Your task to perform on an android device: Open Android settings Image 0: 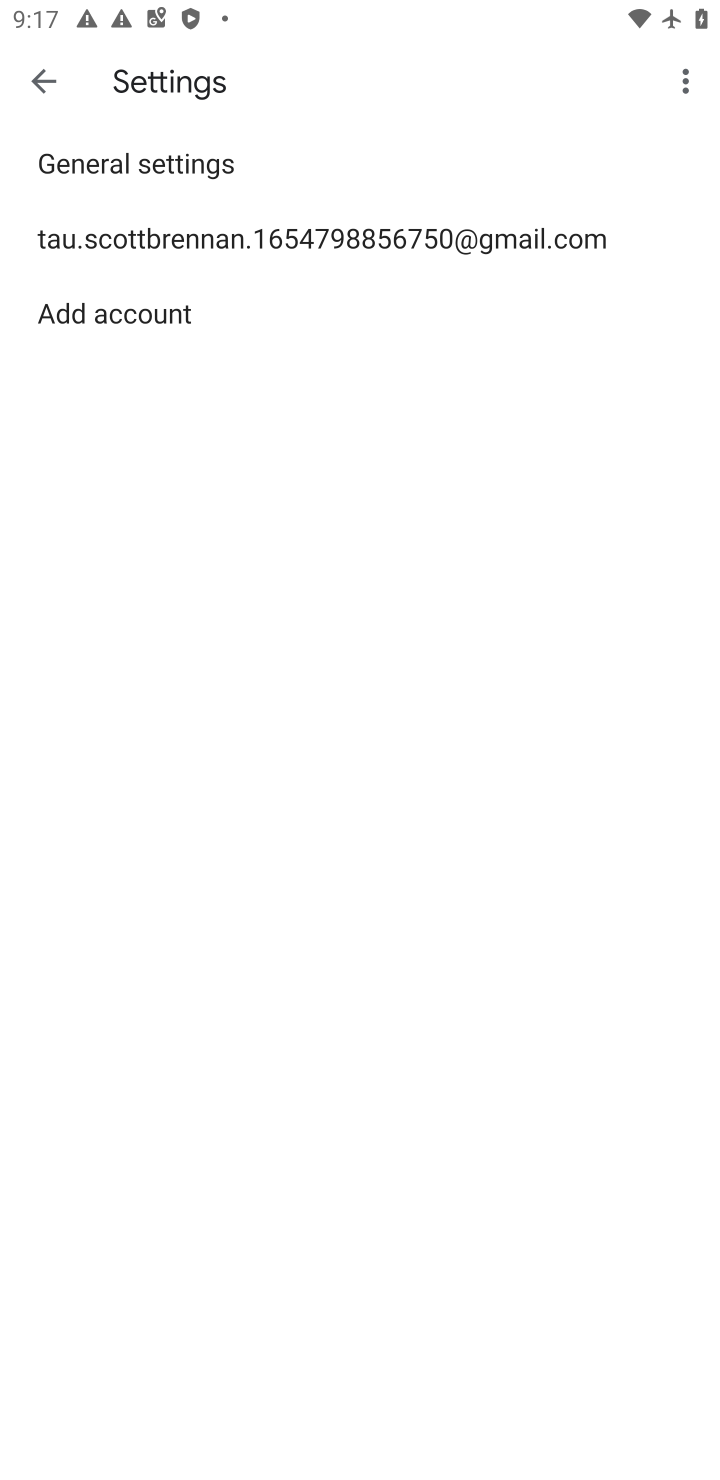
Step 0: press home button
Your task to perform on an android device: Open Android settings Image 1: 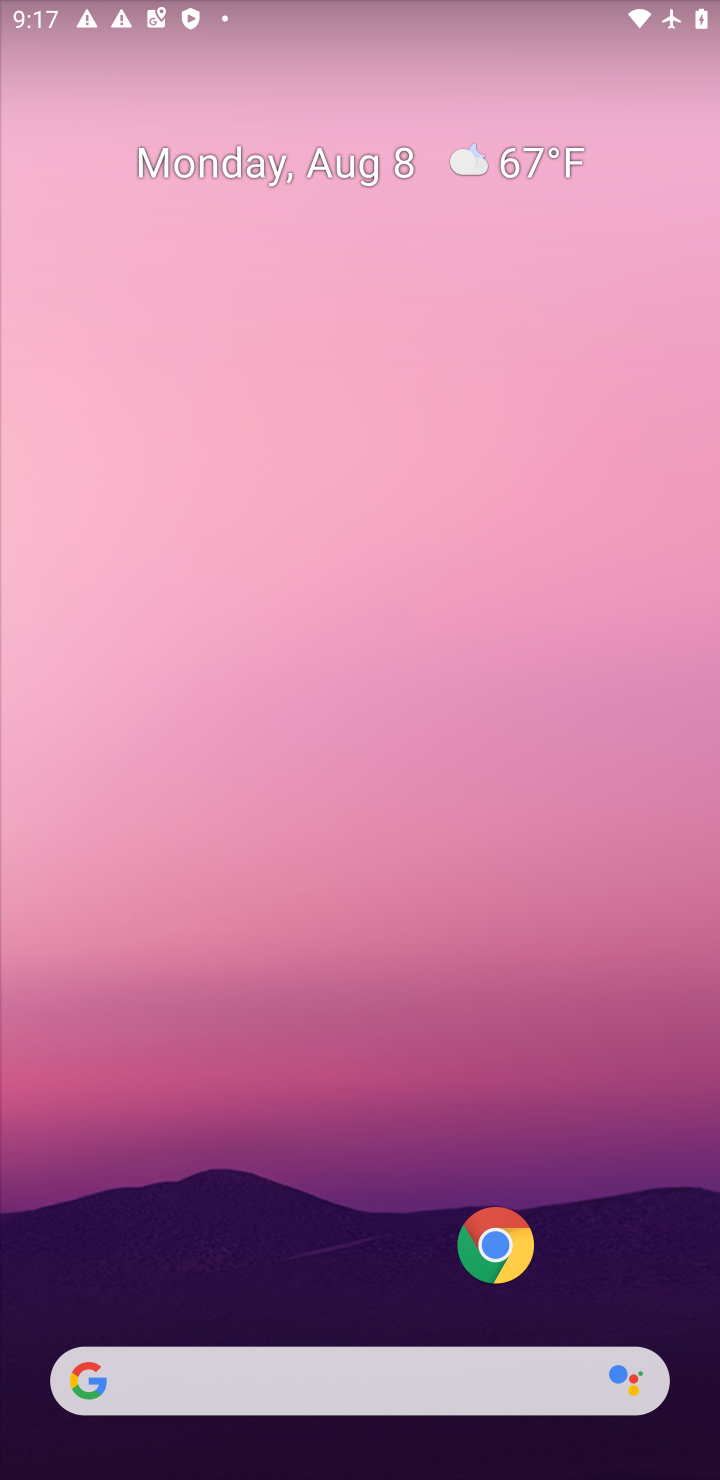
Step 1: drag from (268, 1037) to (342, 16)
Your task to perform on an android device: Open Android settings Image 2: 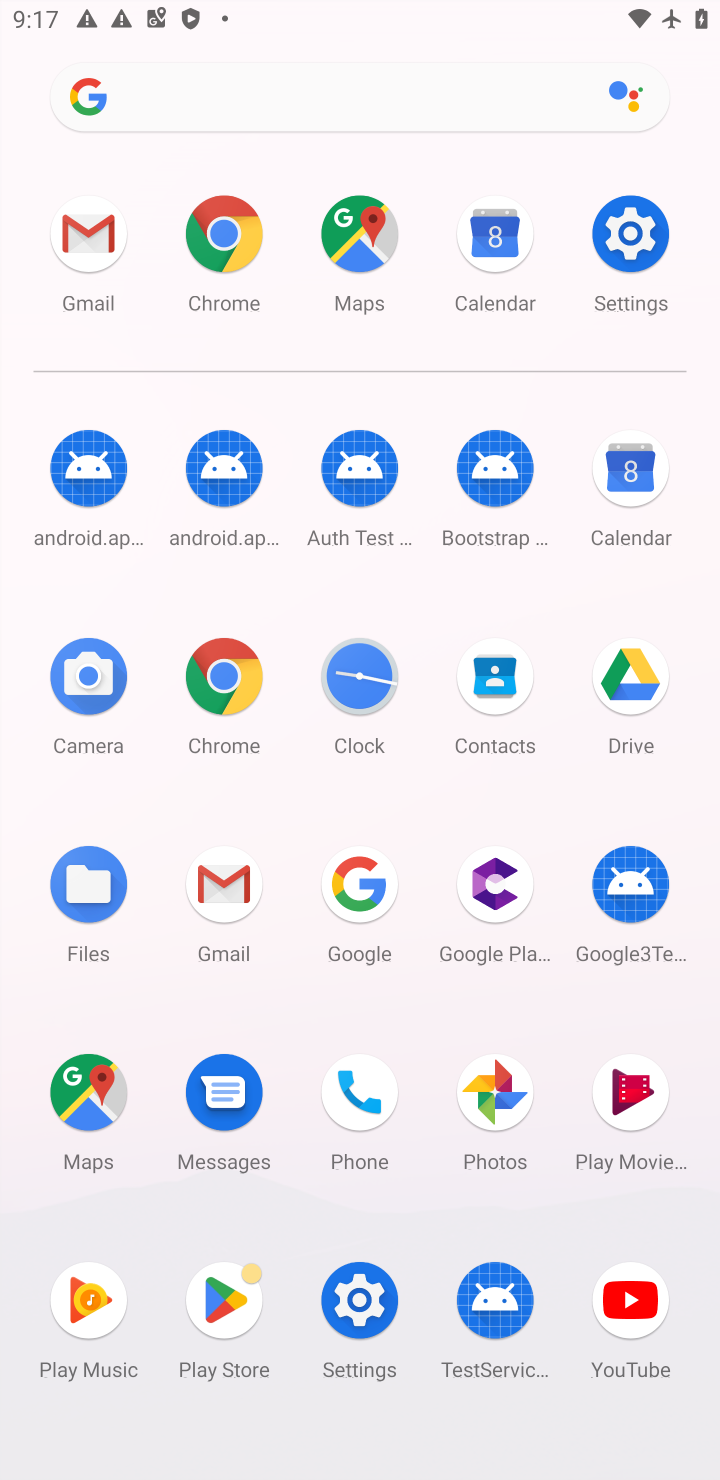
Step 2: click (352, 1315)
Your task to perform on an android device: Open Android settings Image 3: 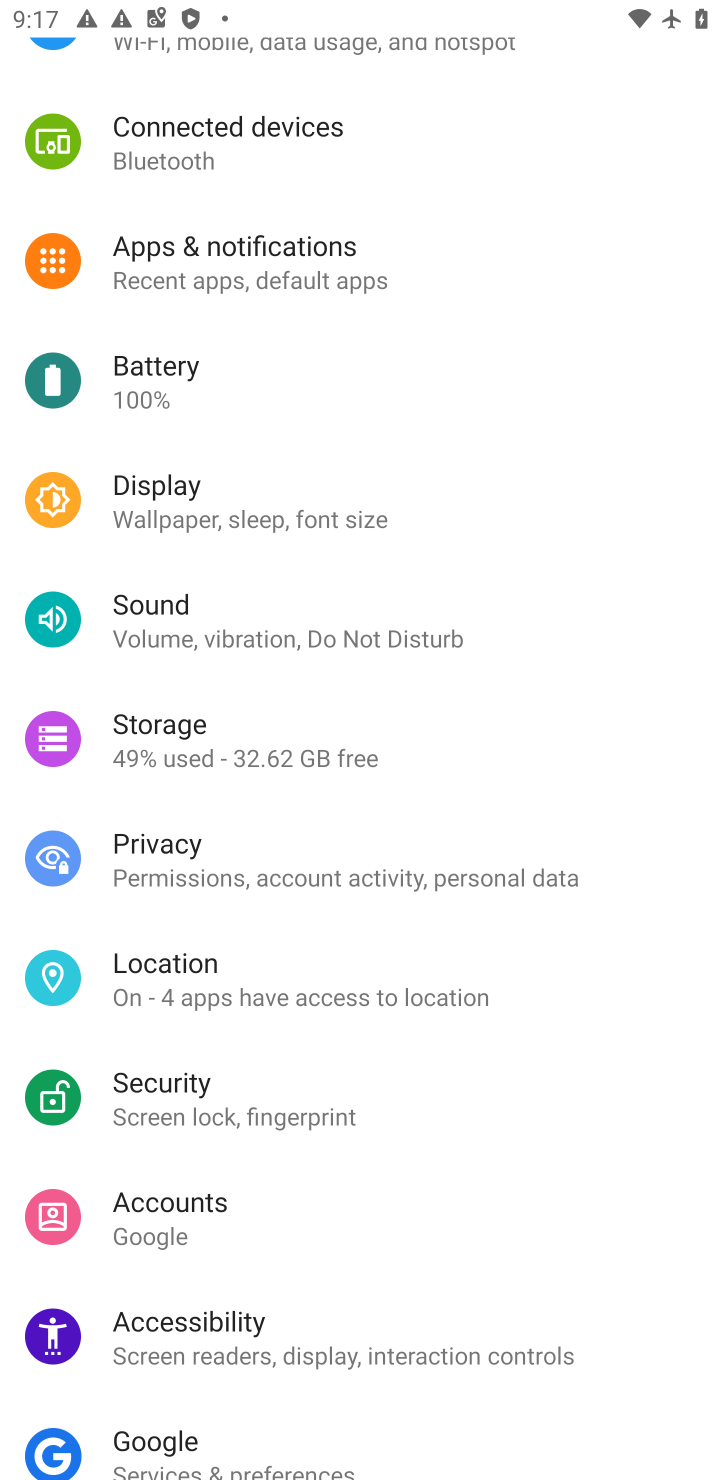
Step 3: drag from (294, 1210) to (319, 2)
Your task to perform on an android device: Open Android settings Image 4: 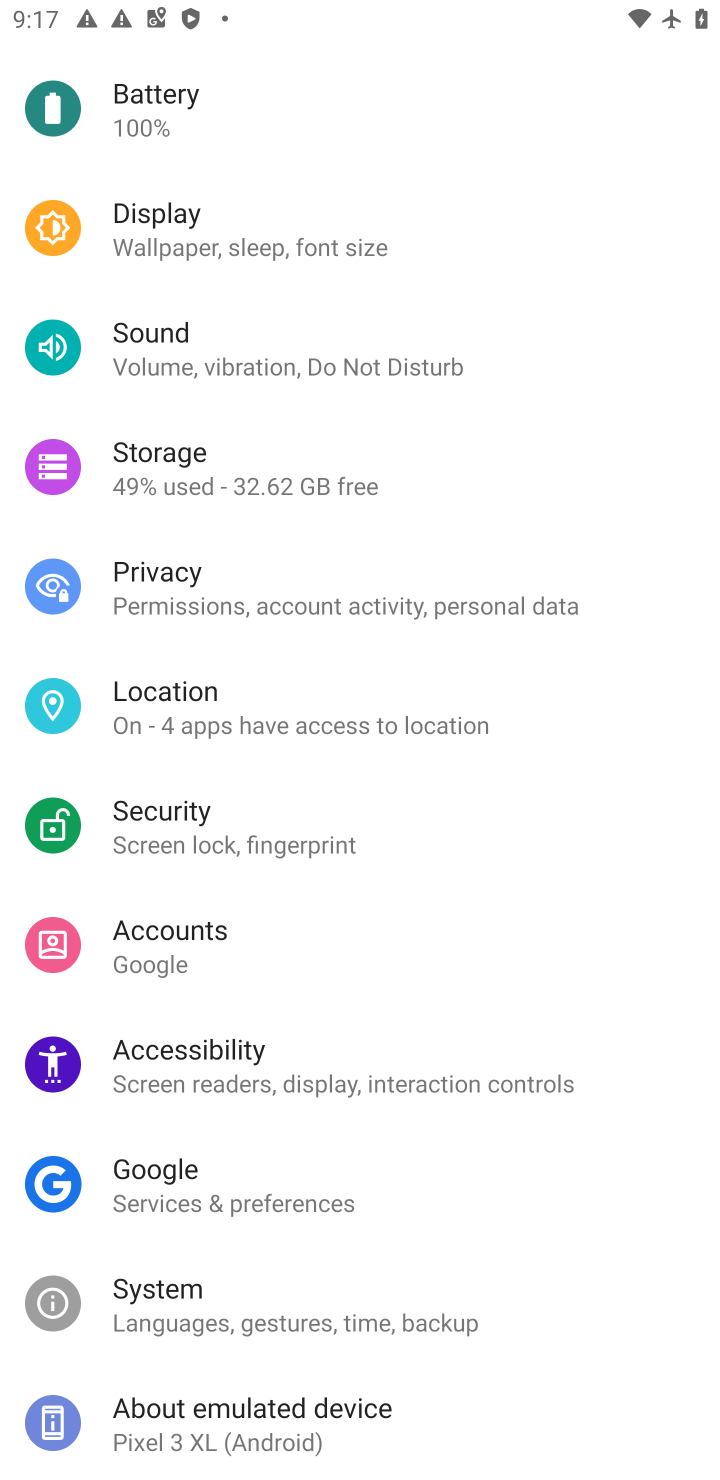
Step 4: drag from (254, 1300) to (252, 764)
Your task to perform on an android device: Open Android settings Image 5: 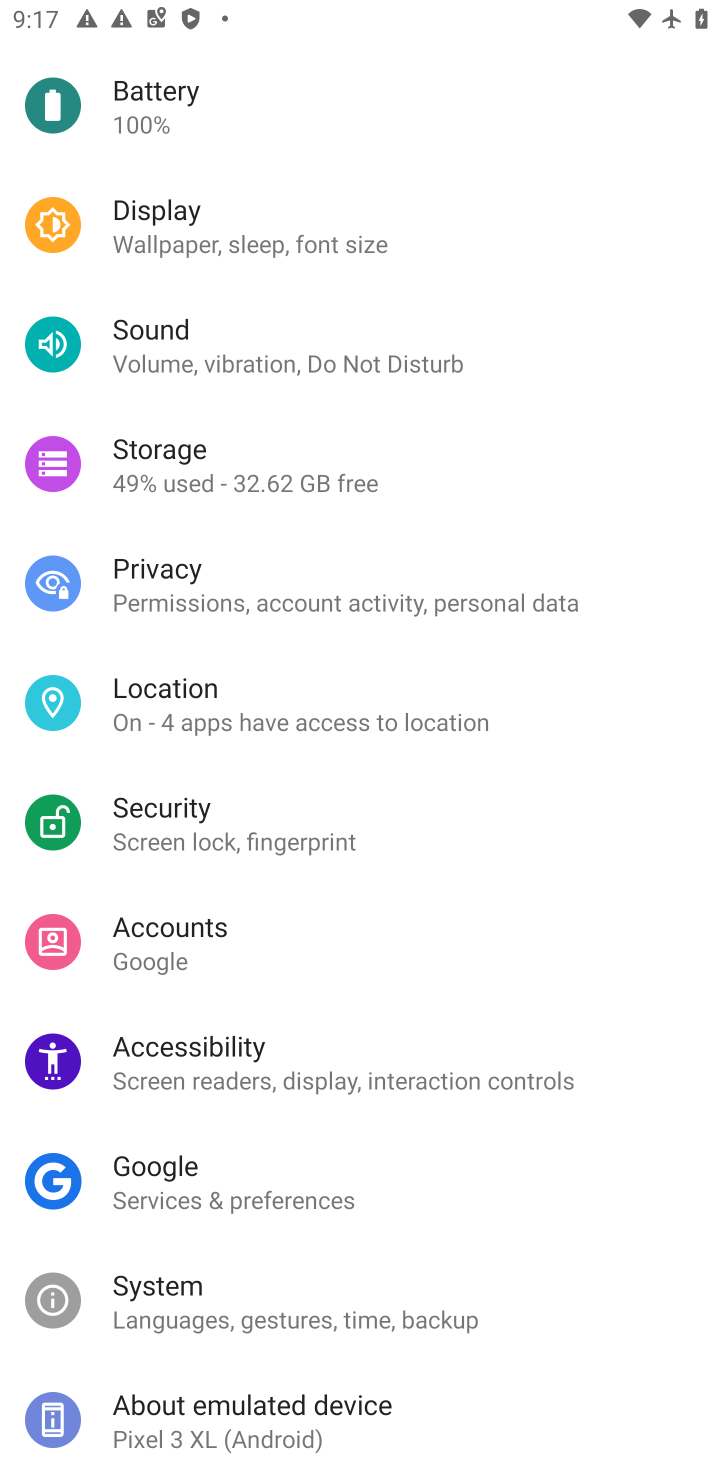
Step 5: click (190, 1412)
Your task to perform on an android device: Open Android settings Image 6: 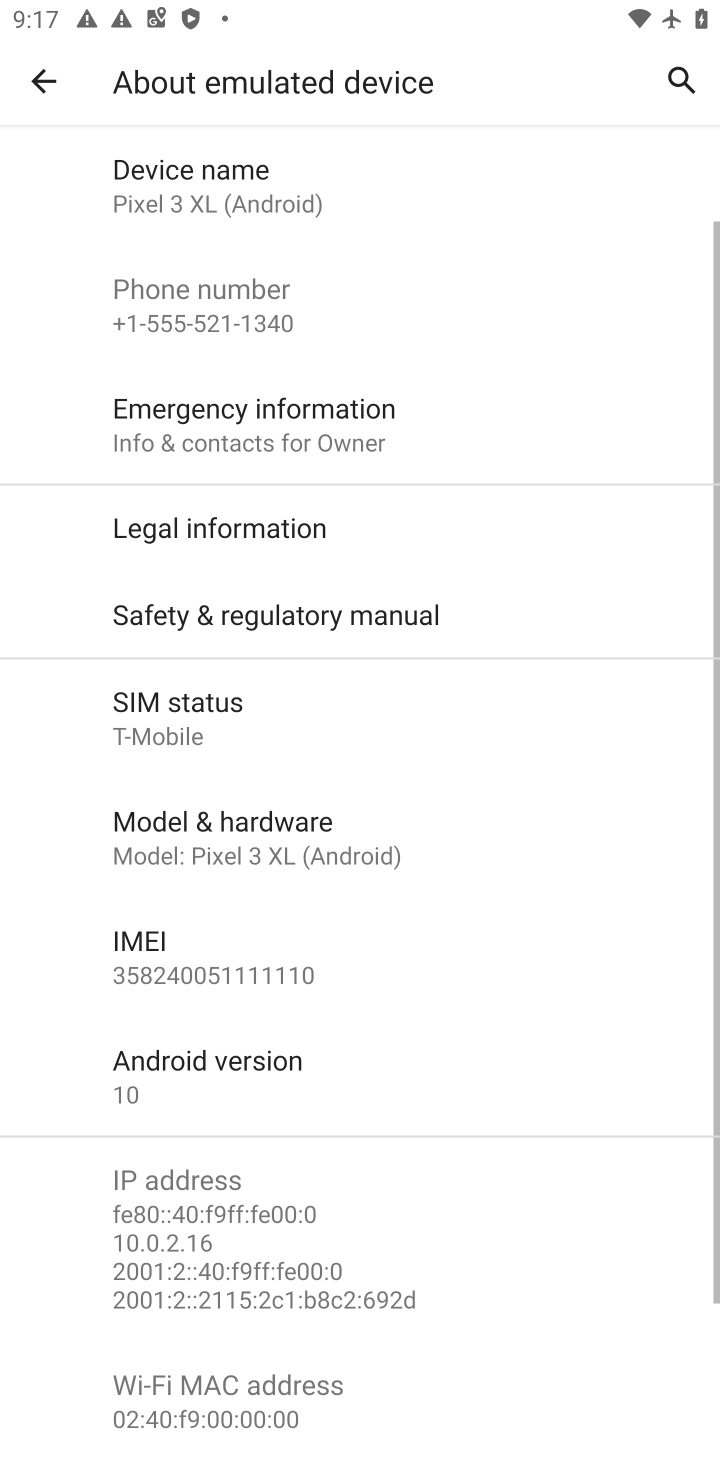
Step 6: task complete